Your task to perform on an android device: Clear the cart on target. Add razer nari to the cart on target, then select checkout. Image 0: 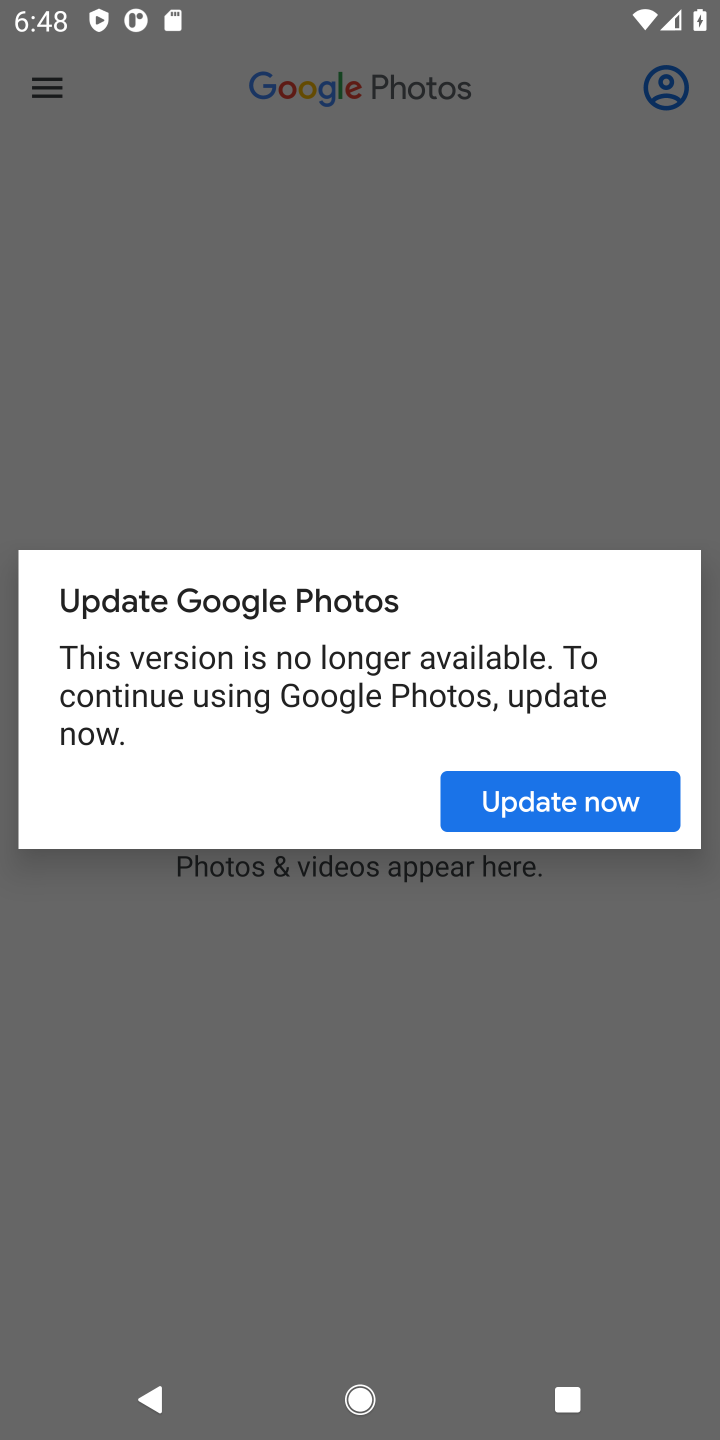
Step 0: press home button
Your task to perform on an android device: Clear the cart on target. Add razer nari to the cart on target, then select checkout. Image 1: 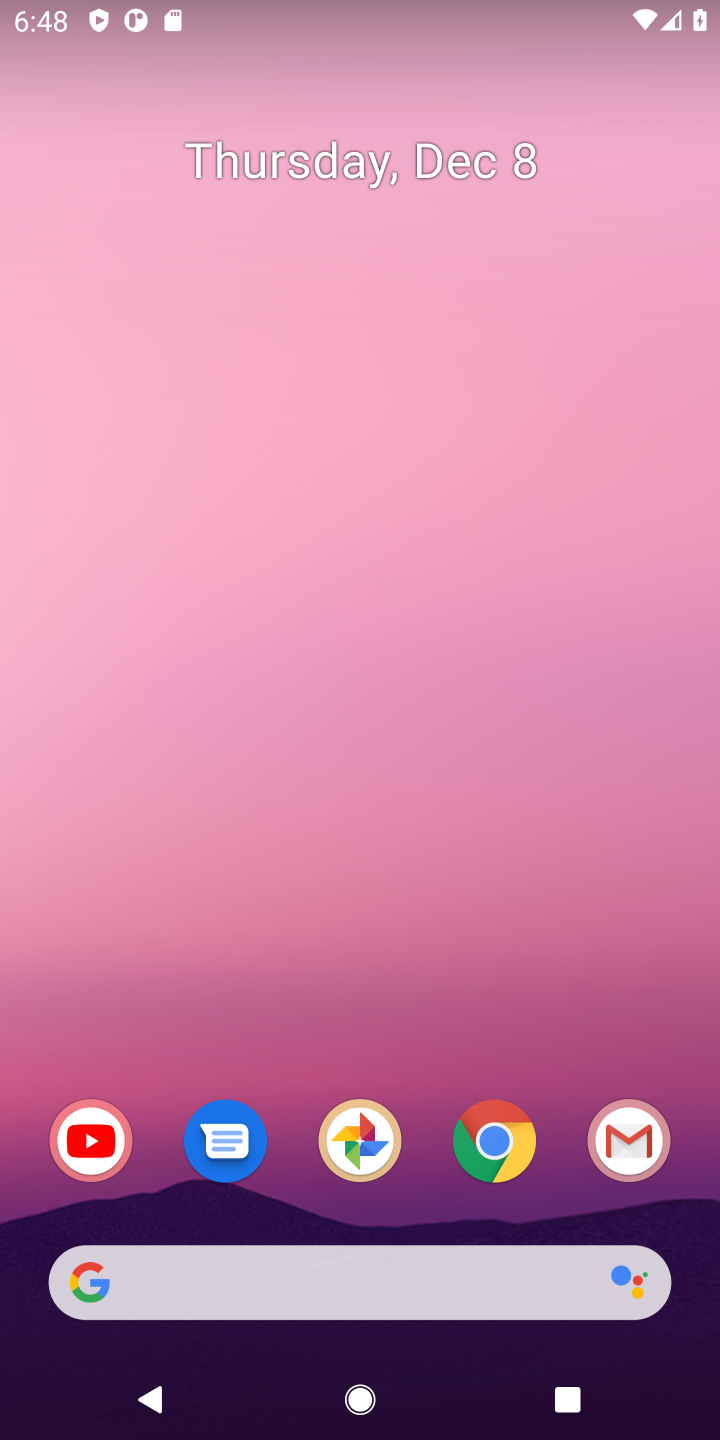
Step 1: press home button
Your task to perform on an android device: Clear the cart on target. Add razer nari to the cart on target, then select checkout. Image 2: 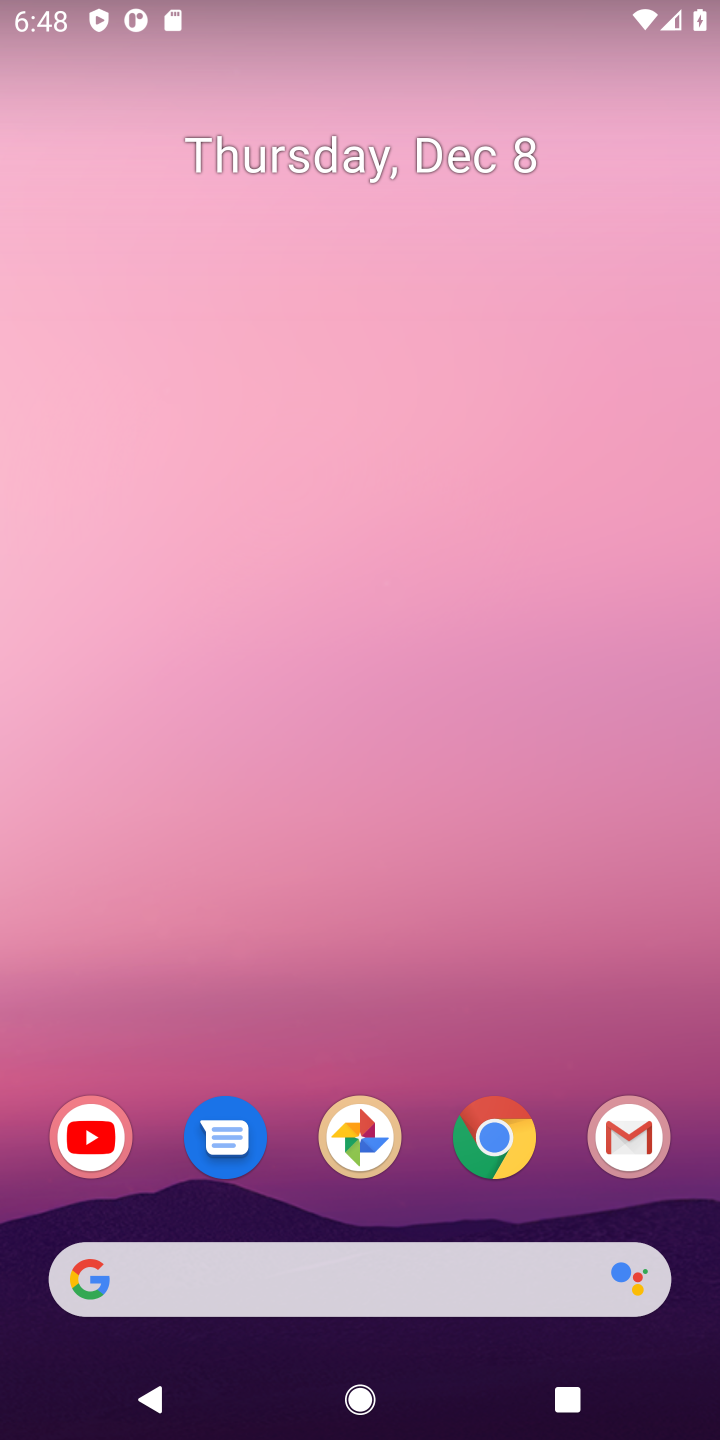
Step 2: click (498, 1146)
Your task to perform on an android device: Clear the cart on target. Add razer nari to the cart on target, then select checkout. Image 3: 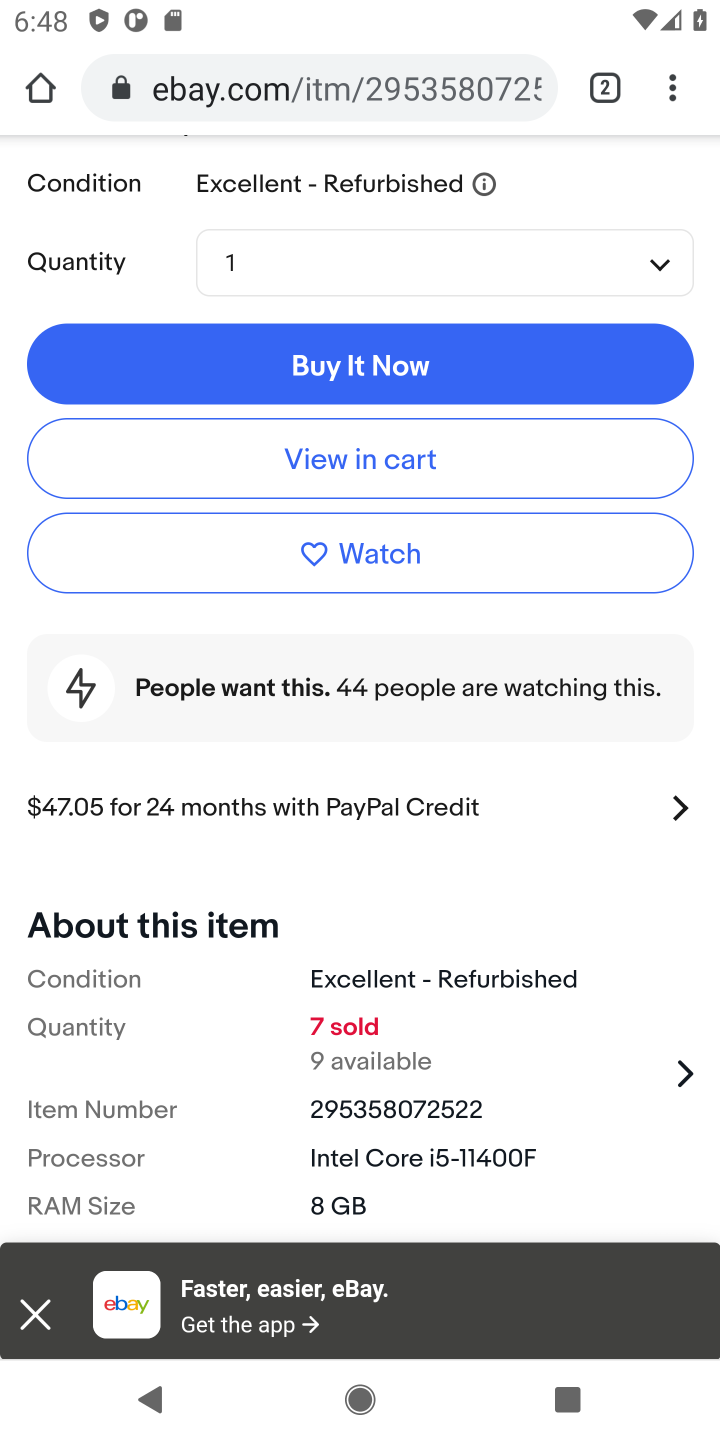
Step 3: drag from (527, 178) to (431, 928)
Your task to perform on an android device: Clear the cart on target. Add razer nari to the cart on target, then select checkout. Image 4: 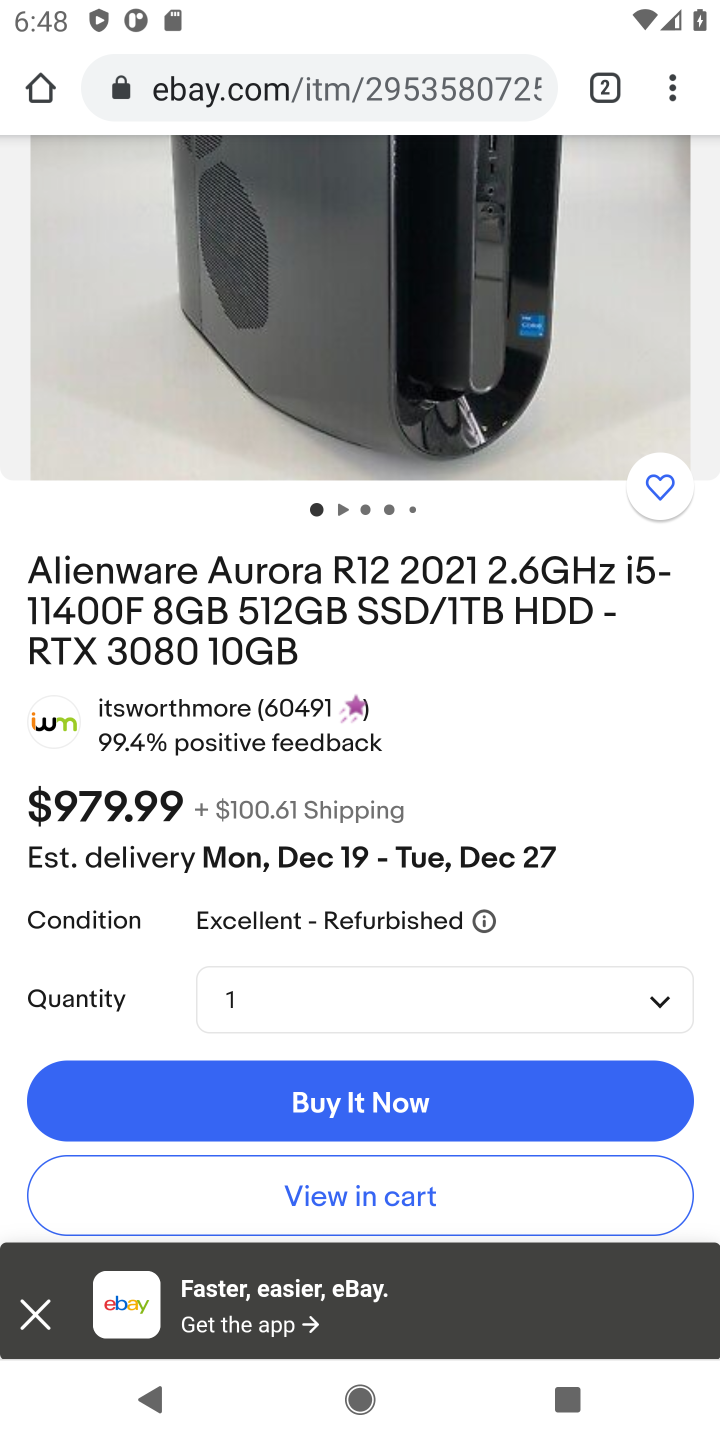
Step 4: drag from (571, 310) to (607, 997)
Your task to perform on an android device: Clear the cart on target. Add razer nari to the cart on target, then select checkout. Image 5: 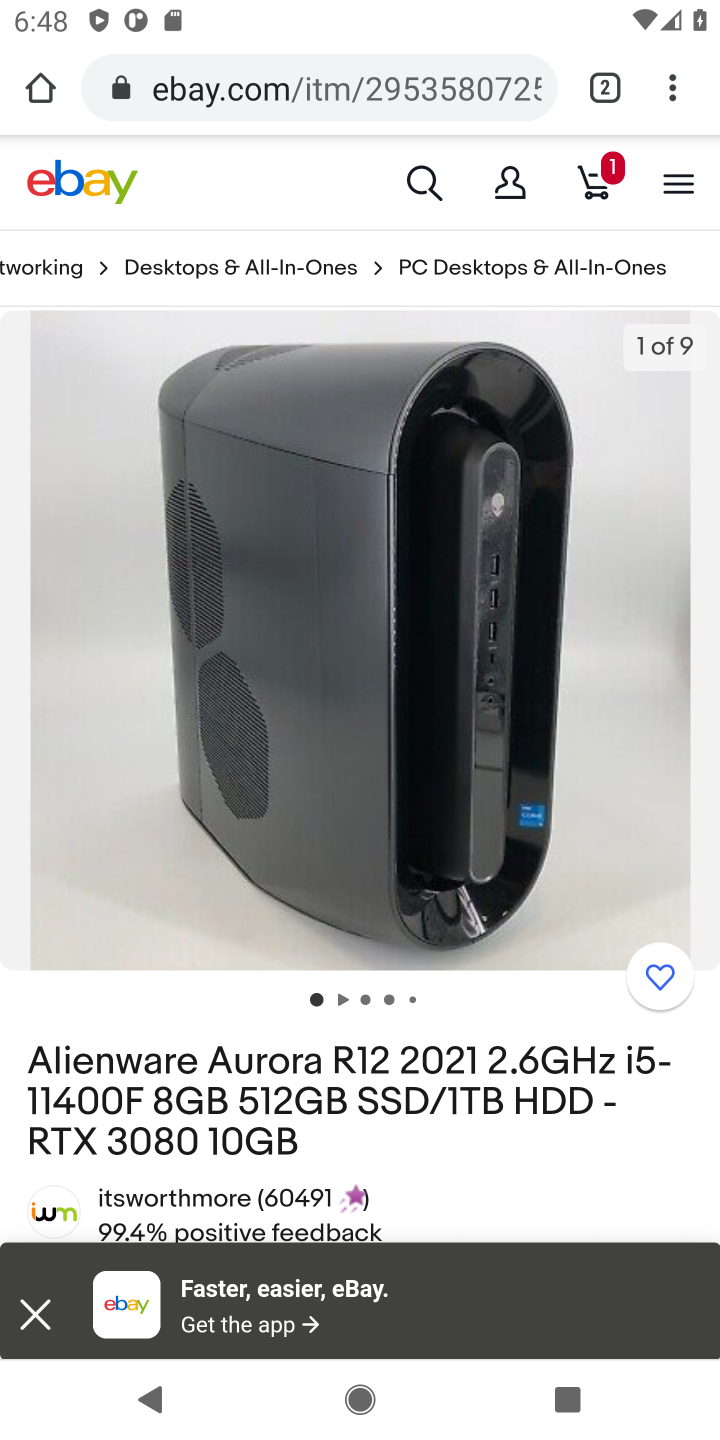
Step 5: click (605, 75)
Your task to perform on an android device: Clear the cart on target. Add razer nari to the cart on target, then select checkout. Image 6: 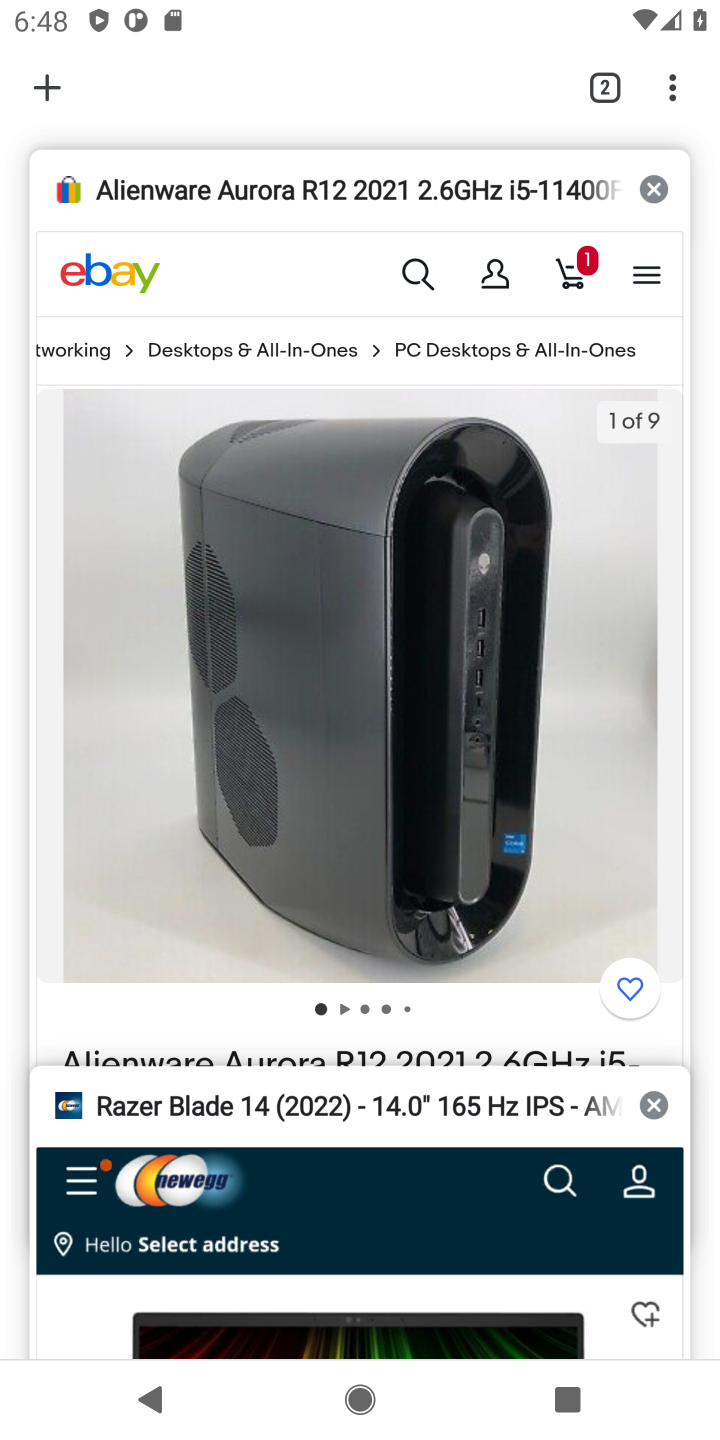
Step 6: click (45, 95)
Your task to perform on an android device: Clear the cart on target. Add razer nari to the cart on target, then select checkout. Image 7: 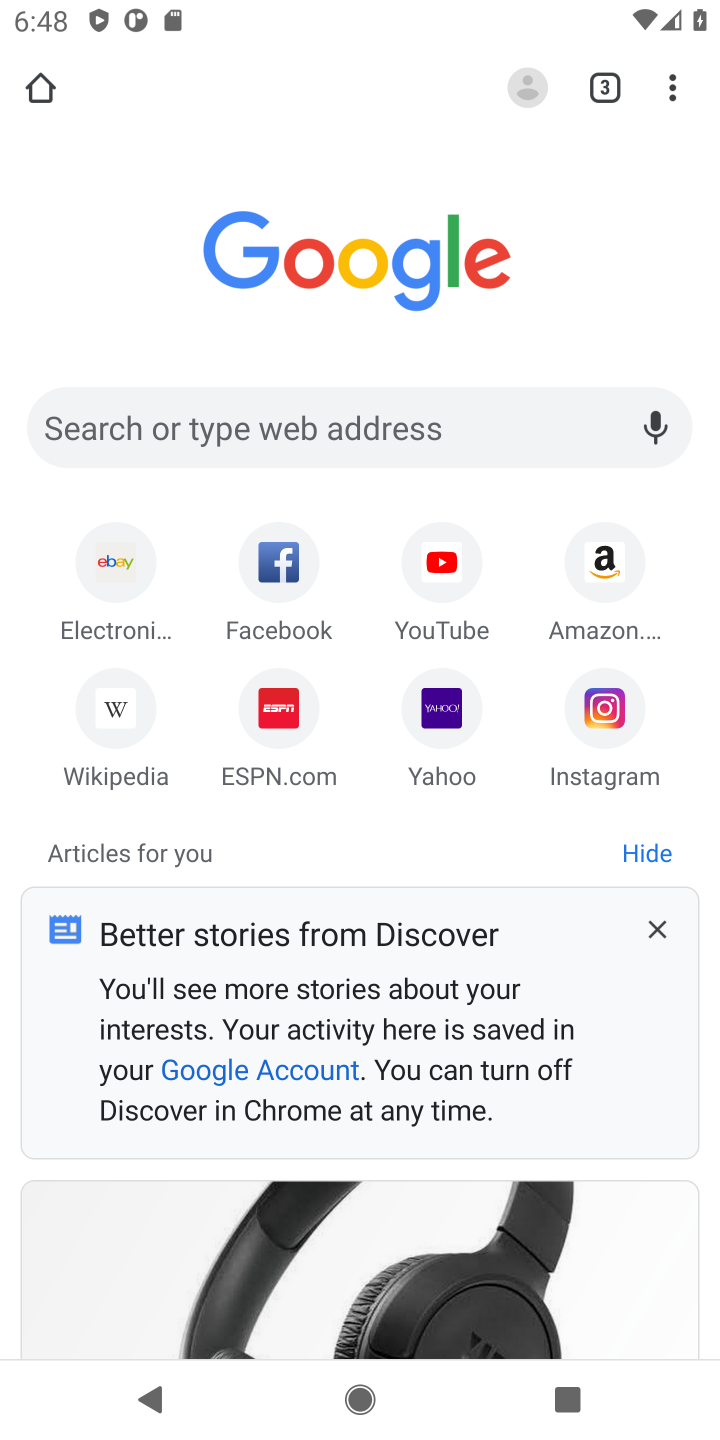
Step 7: click (428, 438)
Your task to perform on an android device: Clear the cart on target. Add razer nari to the cart on target, then select checkout. Image 8: 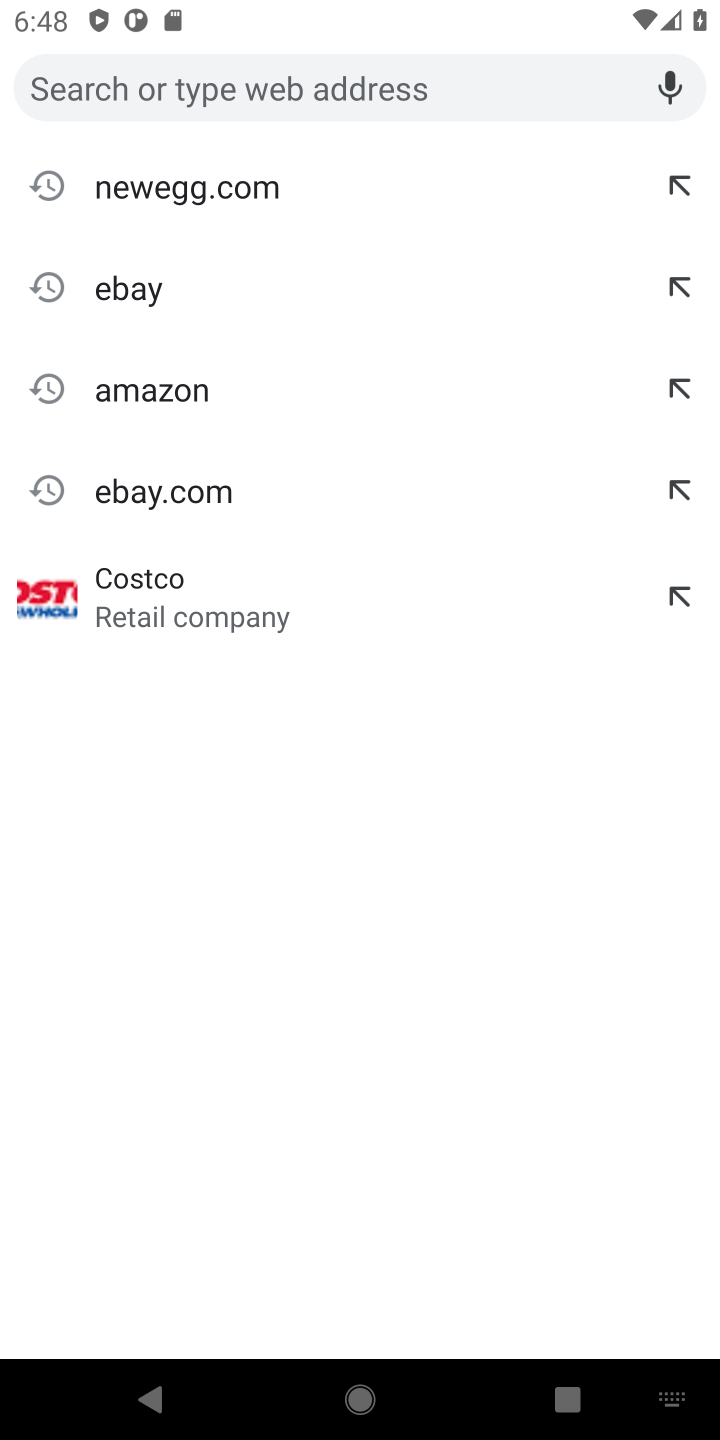
Step 8: type "target"
Your task to perform on an android device: Clear the cart on target. Add razer nari to the cart on target, then select checkout. Image 9: 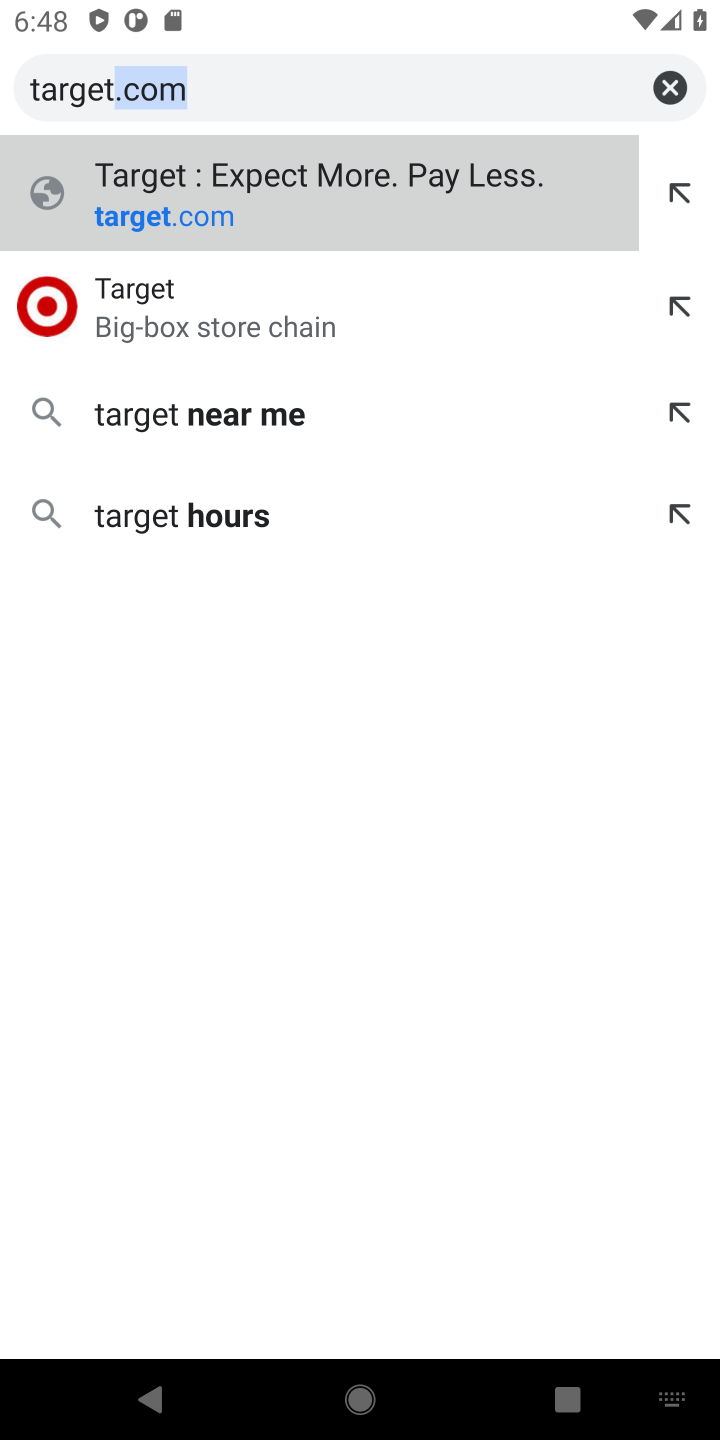
Step 9: click (170, 180)
Your task to perform on an android device: Clear the cart on target. Add razer nari to the cart on target, then select checkout. Image 10: 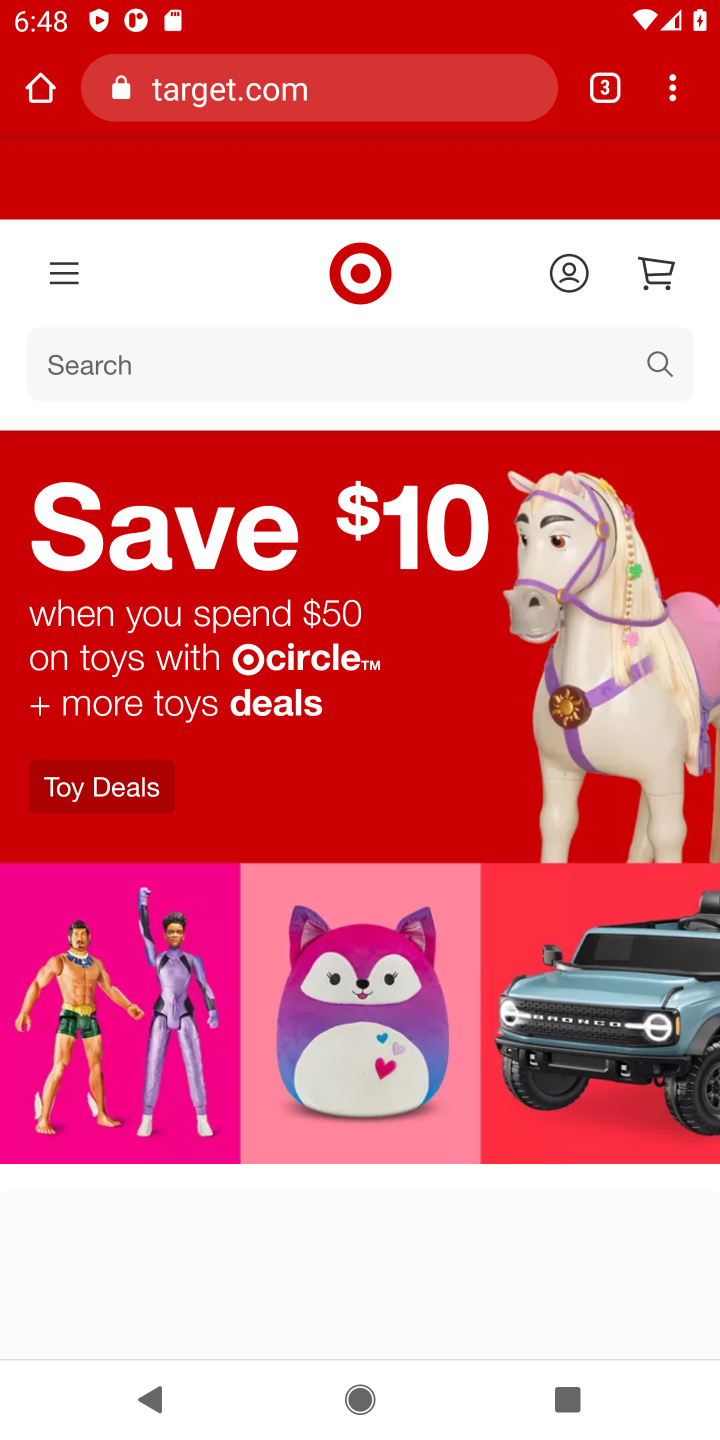
Step 10: click (117, 358)
Your task to perform on an android device: Clear the cart on target. Add razer nari to the cart on target, then select checkout. Image 11: 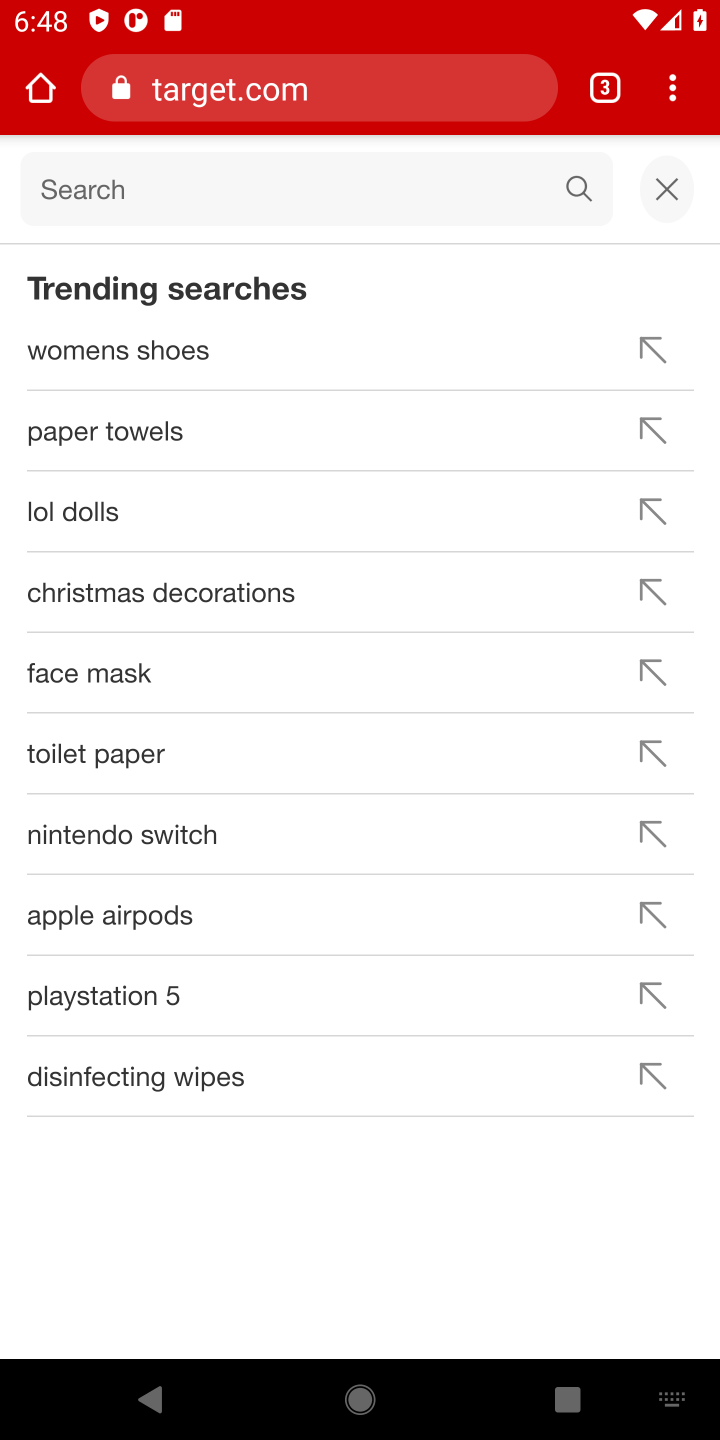
Step 11: type "razer nari"
Your task to perform on an android device: Clear the cart on target. Add razer nari to the cart on target, then select checkout. Image 12: 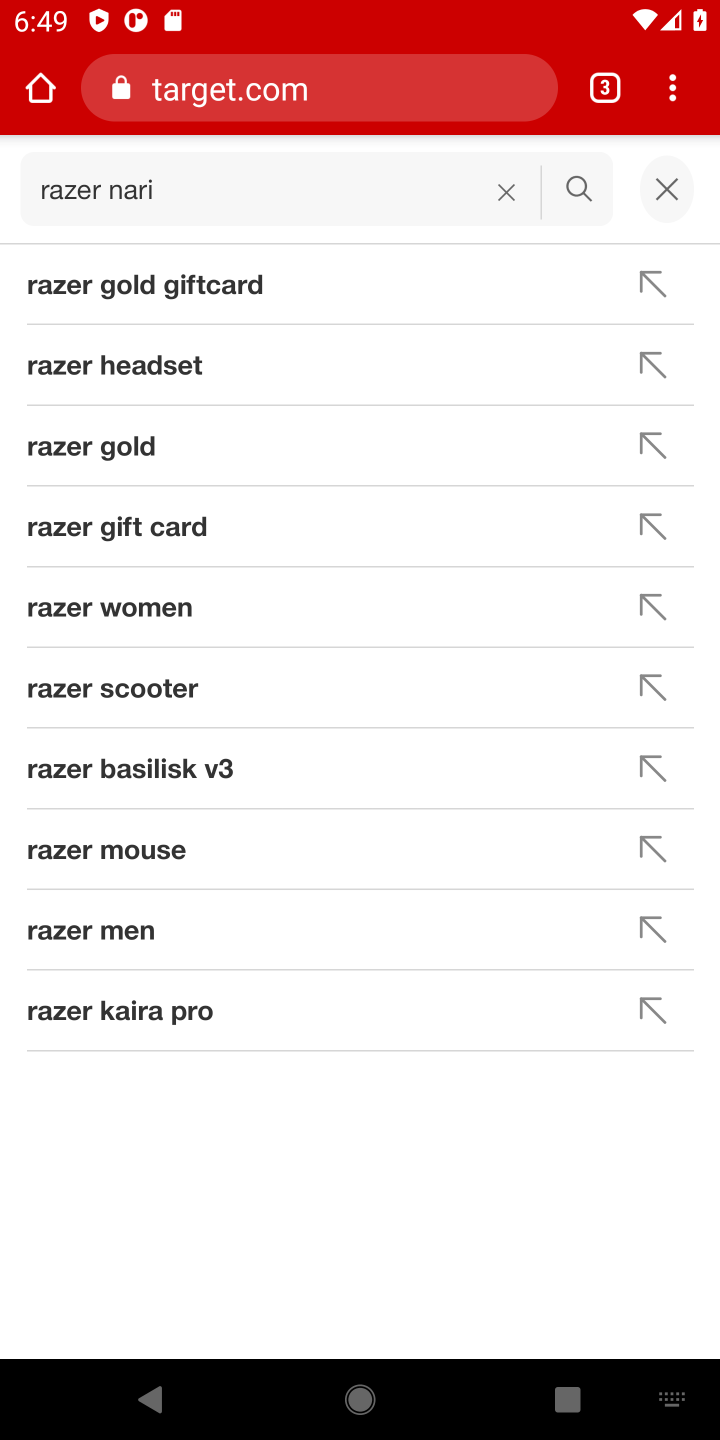
Step 12: click (578, 187)
Your task to perform on an android device: Clear the cart on target. Add razer nari to the cart on target, then select checkout. Image 13: 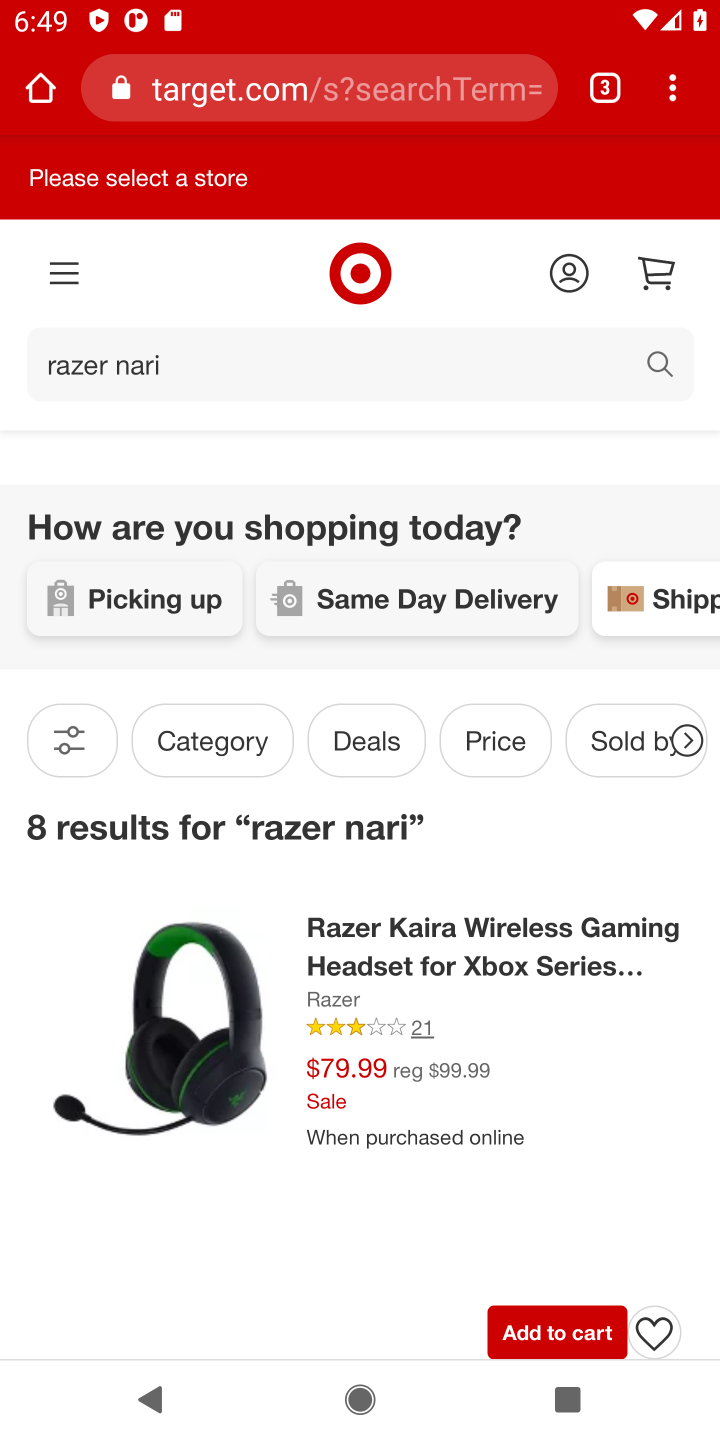
Step 13: task complete